Your task to perform on an android device: Clear the cart on costco.com. Add usb-c to usb-a to the cart on costco.com Image 0: 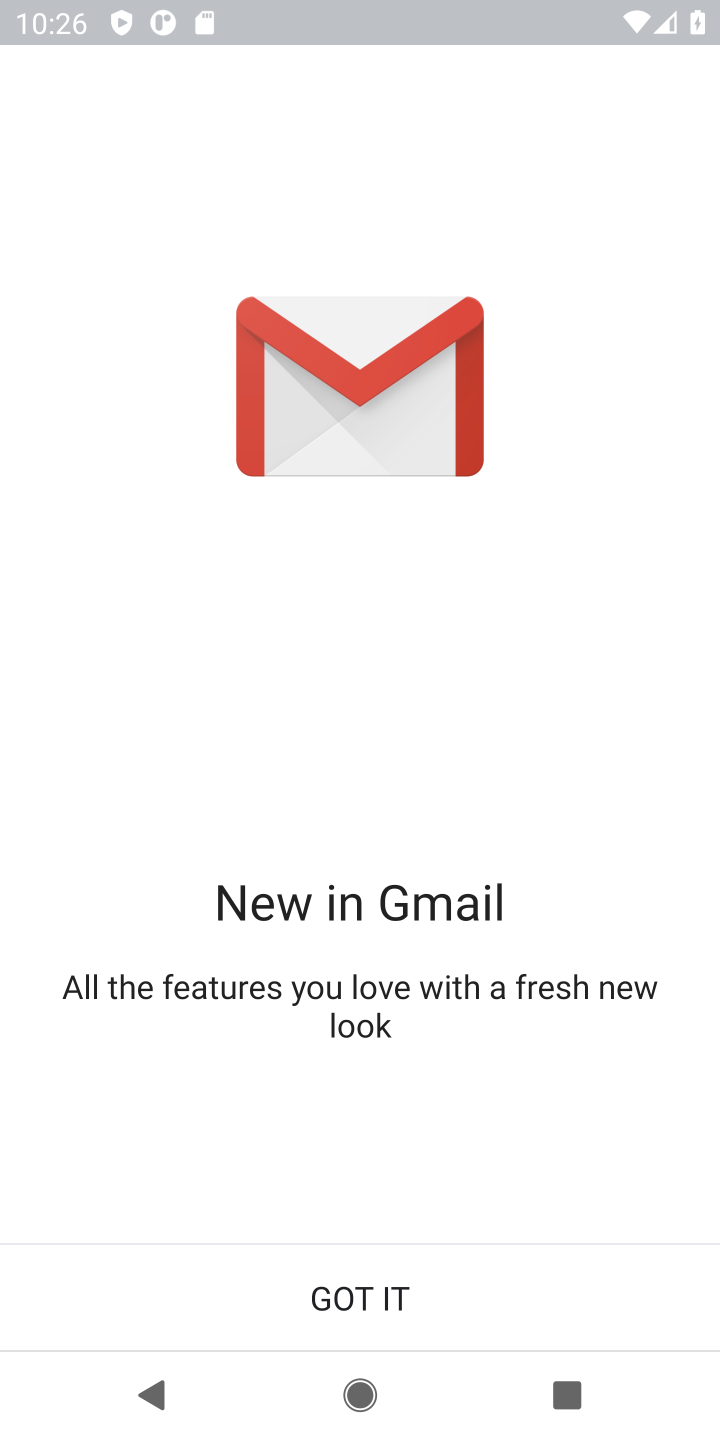
Step 0: press home button
Your task to perform on an android device: Clear the cart on costco.com. Add usb-c to usb-a to the cart on costco.com Image 1: 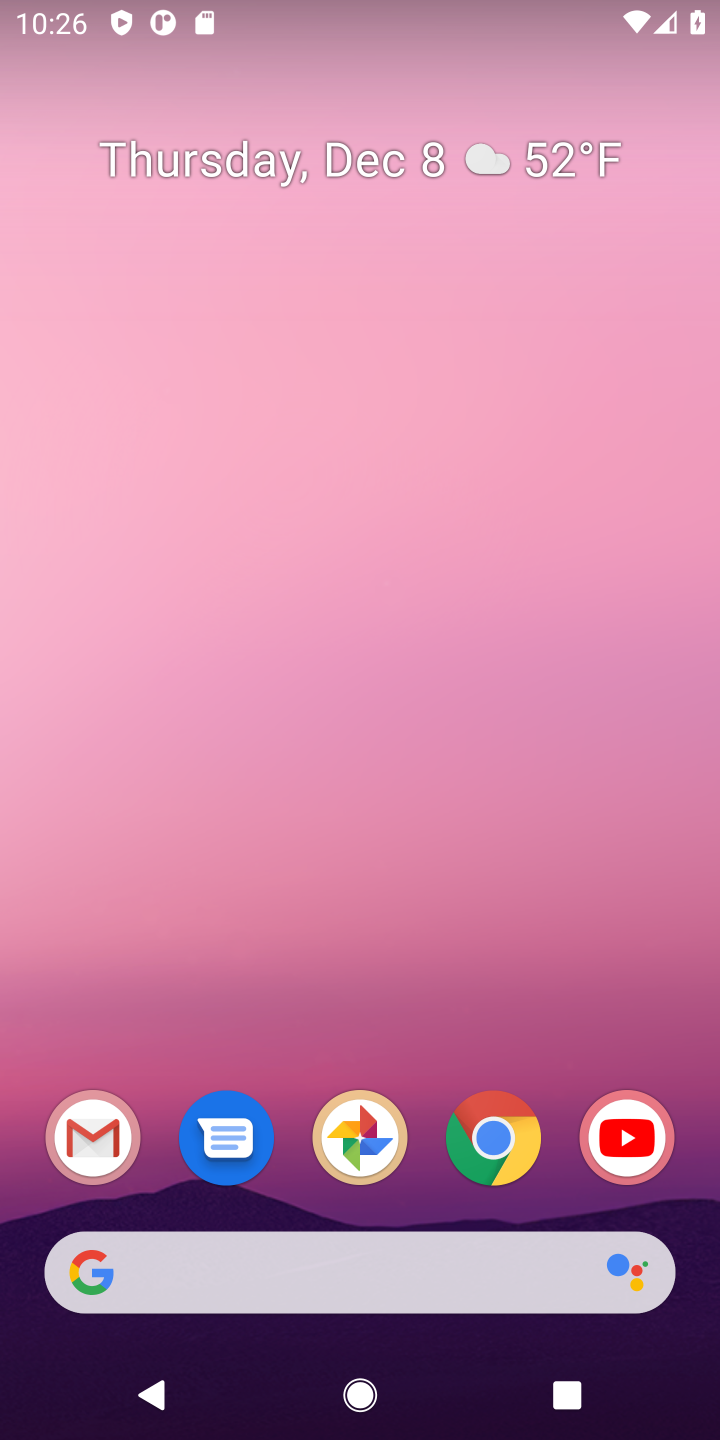
Step 1: click (514, 1155)
Your task to perform on an android device: Clear the cart on costco.com. Add usb-c to usb-a to the cart on costco.com Image 2: 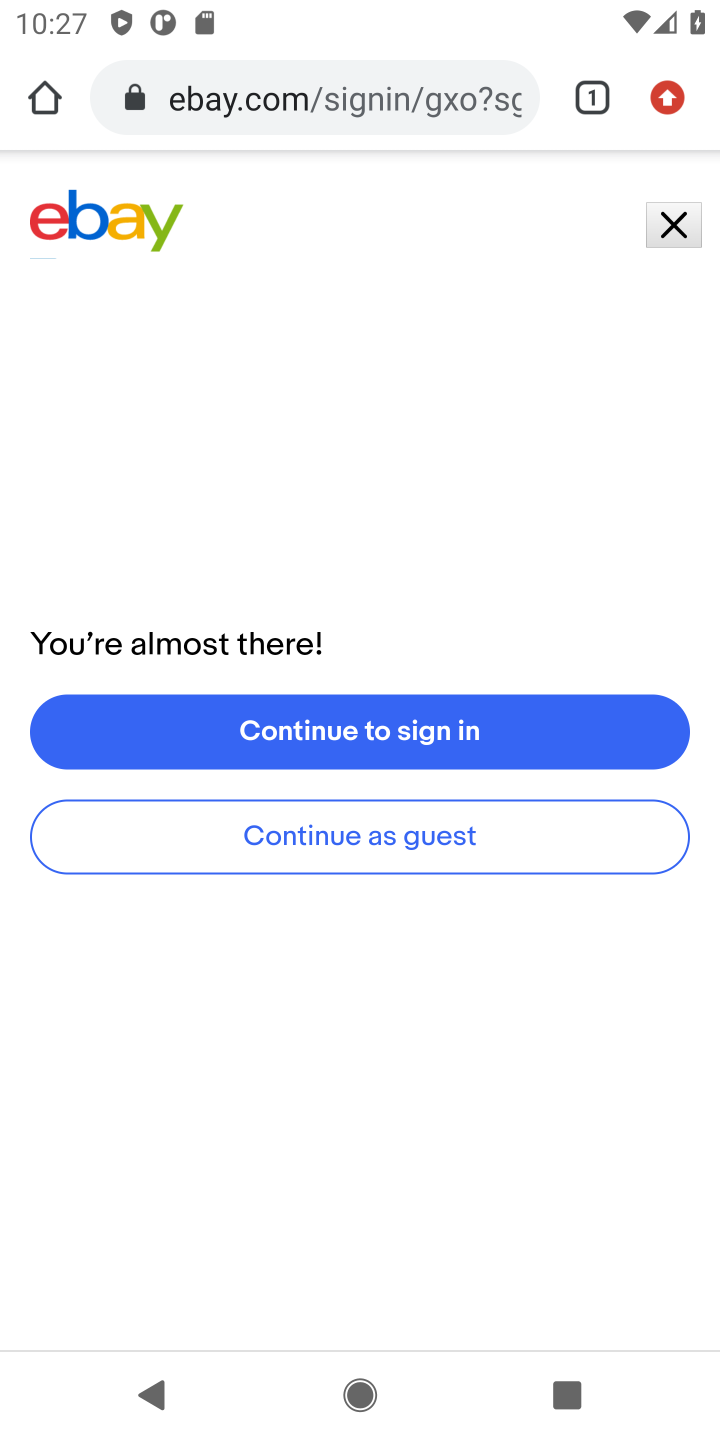
Step 2: click (318, 106)
Your task to perform on an android device: Clear the cart on costco.com. Add usb-c to usb-a to the cart on costco.com Image 3: 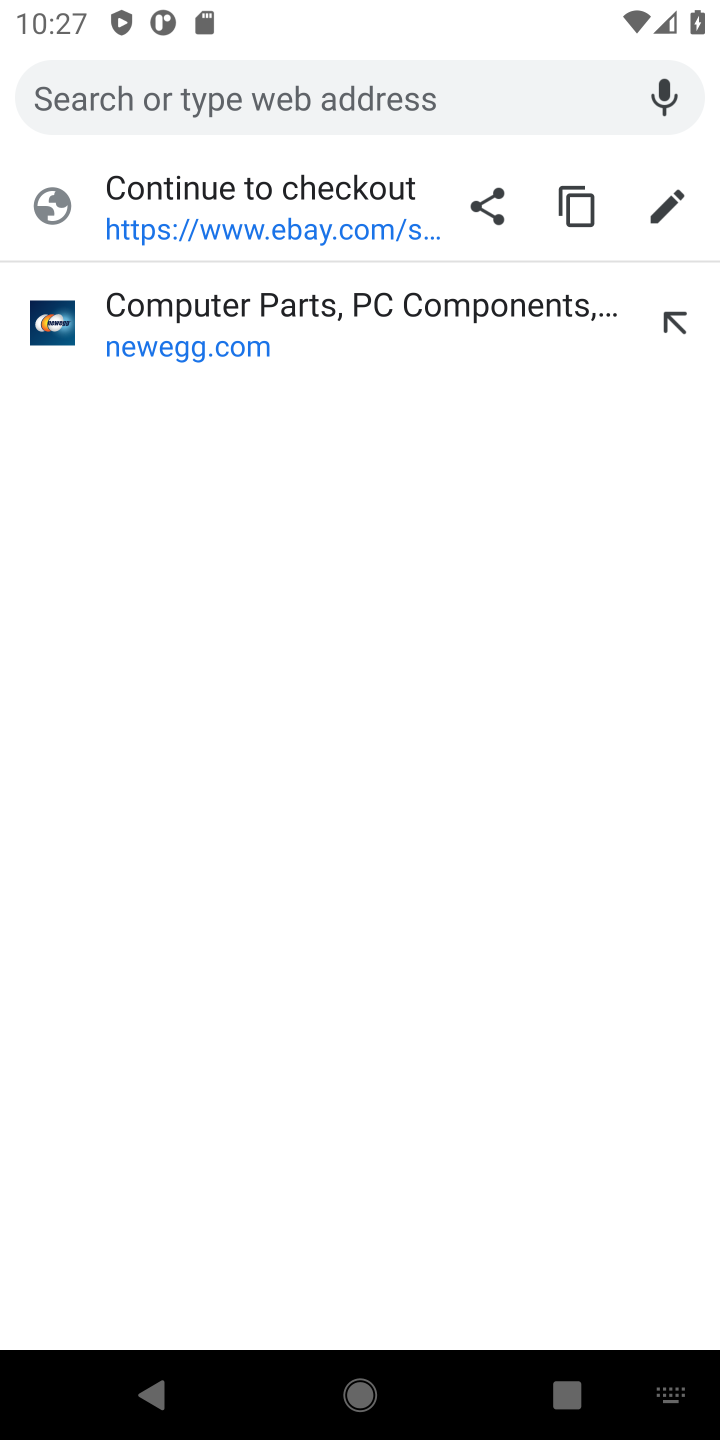
Step 3: type "costco.com"
Your task to perform on an android device: Clear the cart on costco.com. Add usb-c to usb-a to the cart on costco.com Image 4: 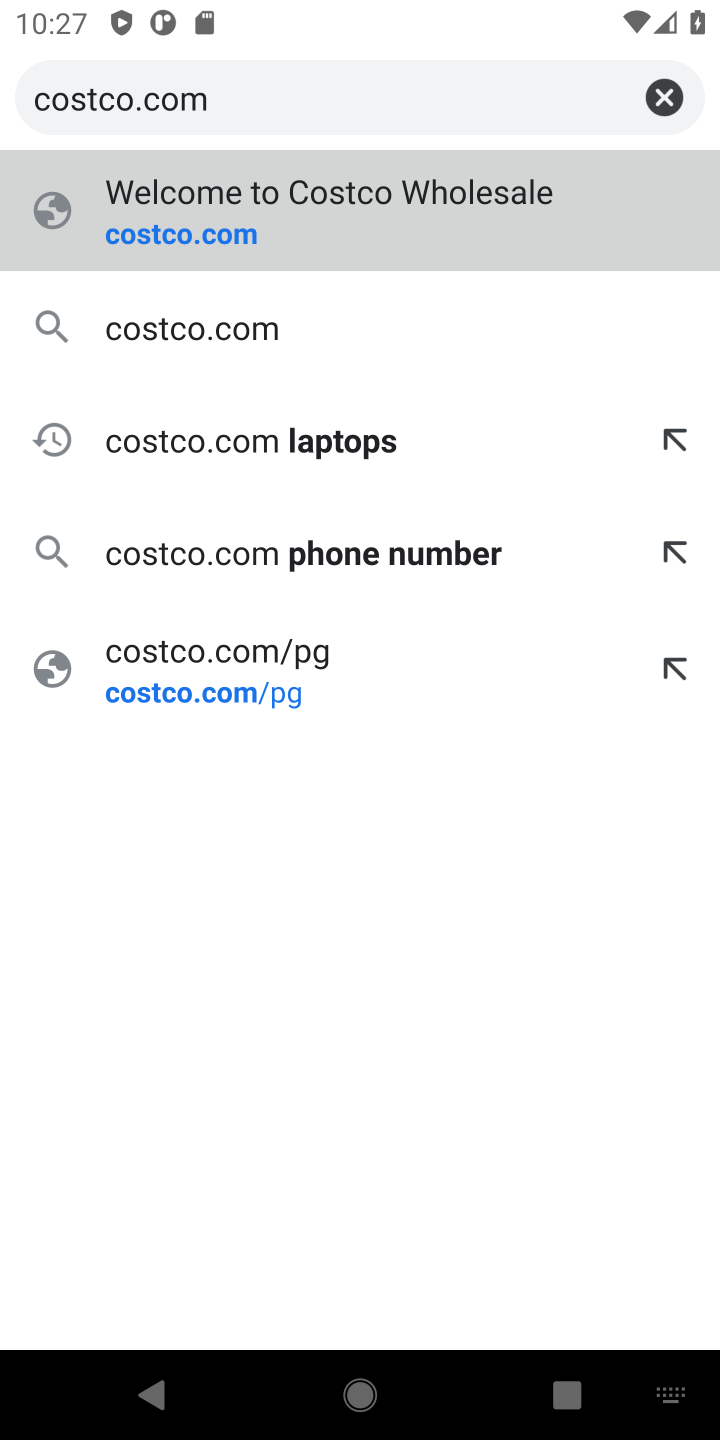
Step 4: press enter
Your task to perform on an android device: Clear the cart on costco.com. Add usb-c to usb-a to the cart on costco.com Image 5: 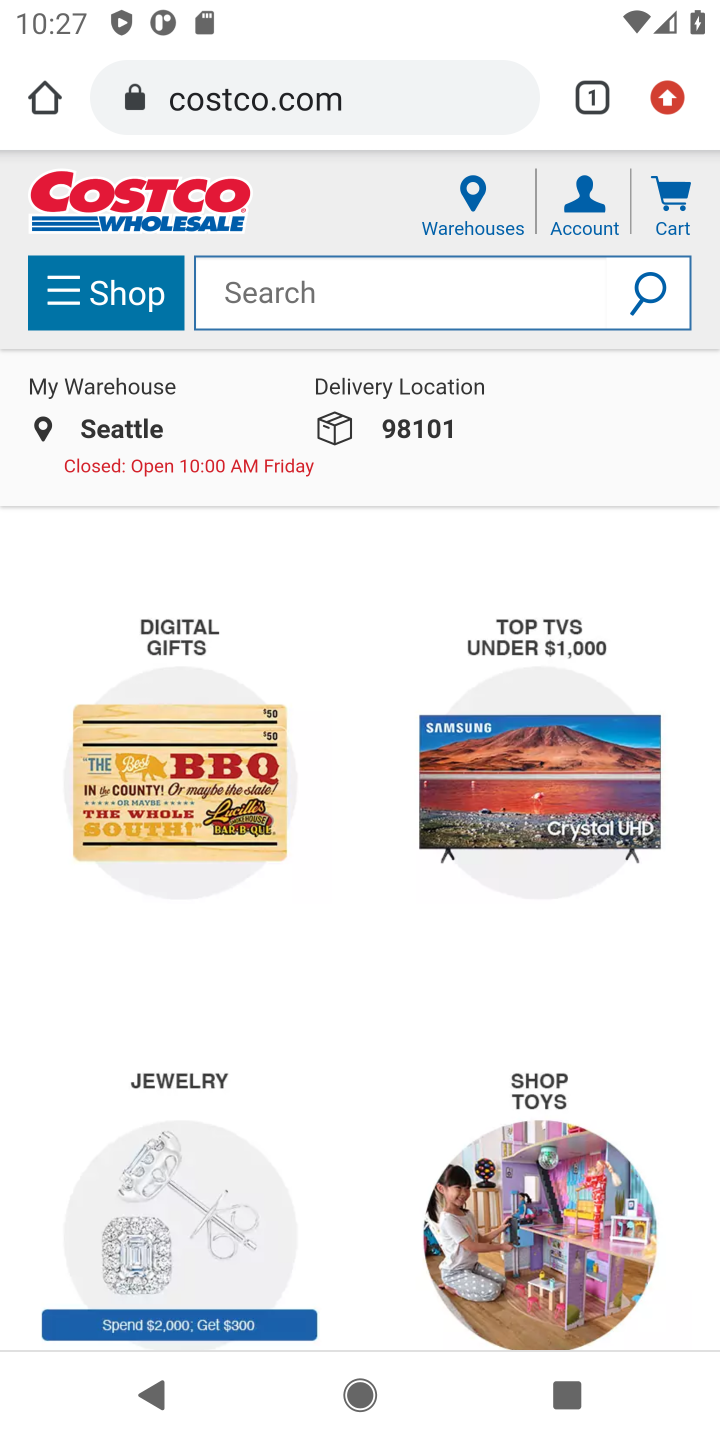
Step 5: click (671, 196)
Your task to perform on an android device: Clear the cart on costco.com. Add usb-c to usb-a to the cart on costco.com Image 6: 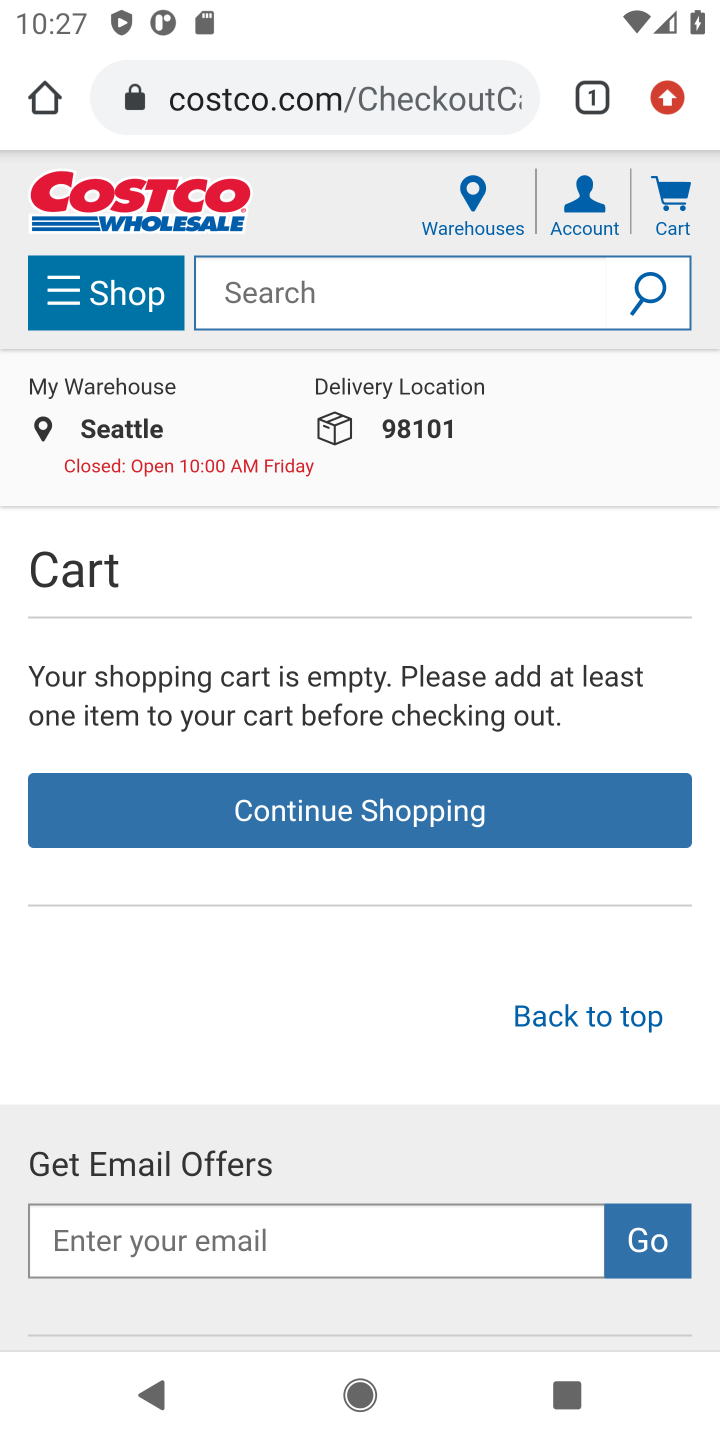
Step 6: click (479, 285)
Your task to perform on an android device: Clear the cart on costco.com. Add usb-c to usb-a to the cart on costco.com Image 7: 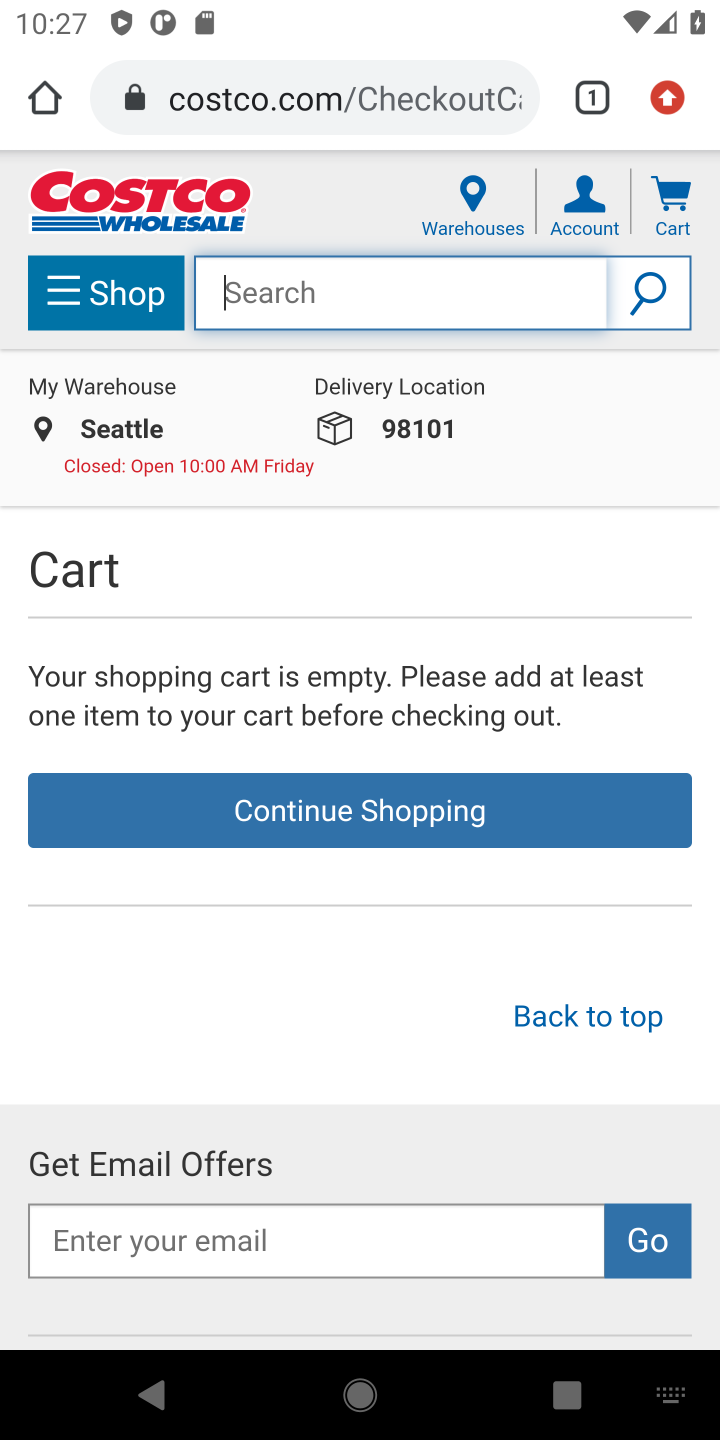
Step 7: type "usb-c to usb-a"
Your task to perform on an android device: Clear the cart on costco.com. Add usb-c to usb-a to the cart on costco.com Image 8: 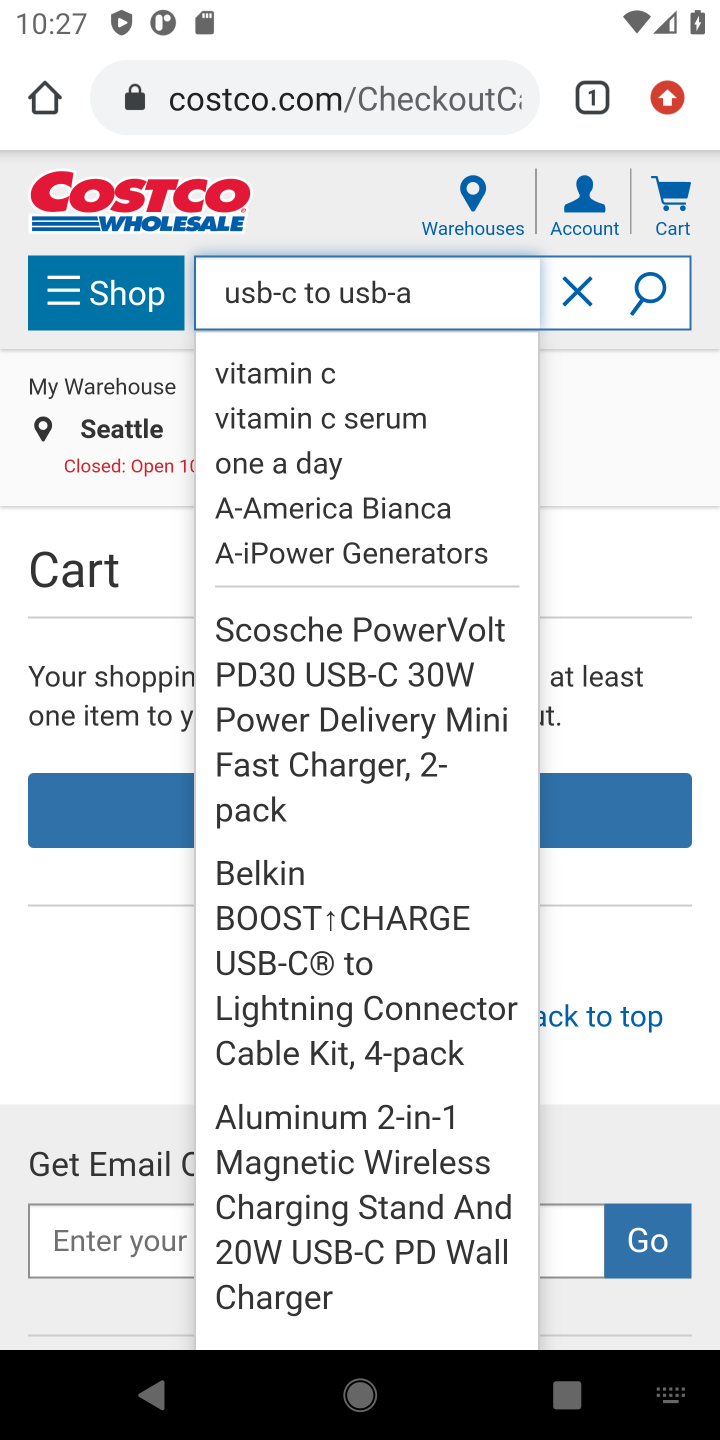
Step 8: click (663, 295)
Your task to perform on an android device: Clear the cart on costco.com. Add usb-c to usb-a to the cart on costco.com Image 9: 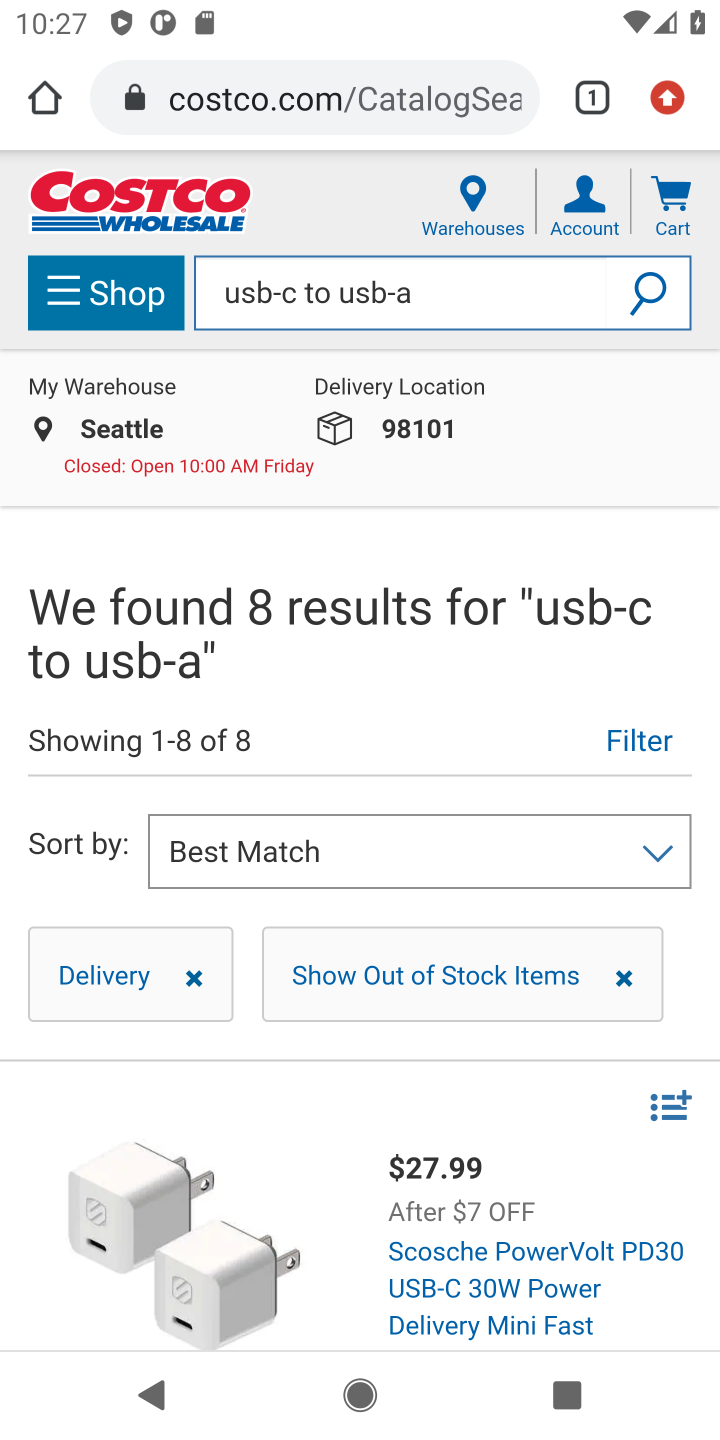
Step 9: task complete